Your task to perform on an android device: delete the emails in spam in the gmail app Image 0: 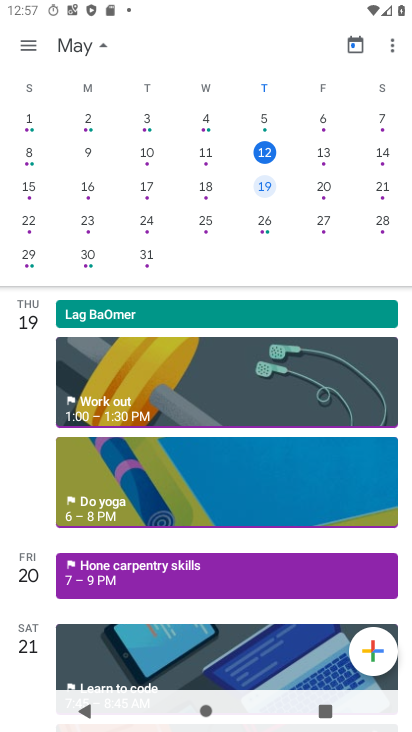
Step 0: press home button
Your task to perform on an android device: delete the emails in spam in the gmail app Image 1: 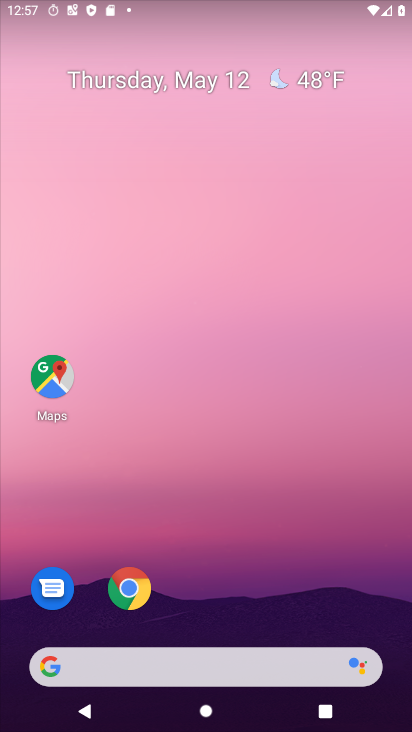
Step 1: drag from (230, 590) to (227, 118)
Your task to perform on an android device: delete the emails in spam in the gmail app Image 2: 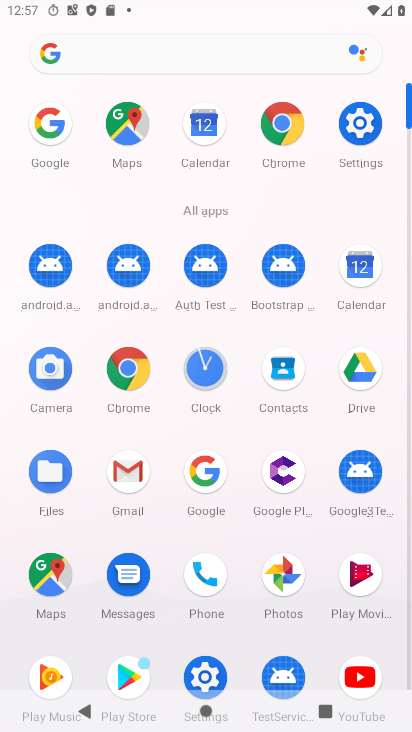
Step 2: click (131, 463)
Your task to perform on an android device: delete the emails in spam in the gmail app Image 3: 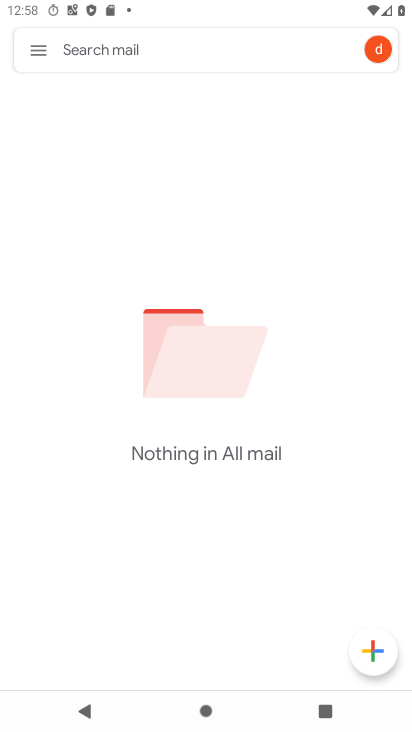
Step 3: click (34, 48)
Your task to perform on an android device: delete the emails in spam in the gmail app Image 4: 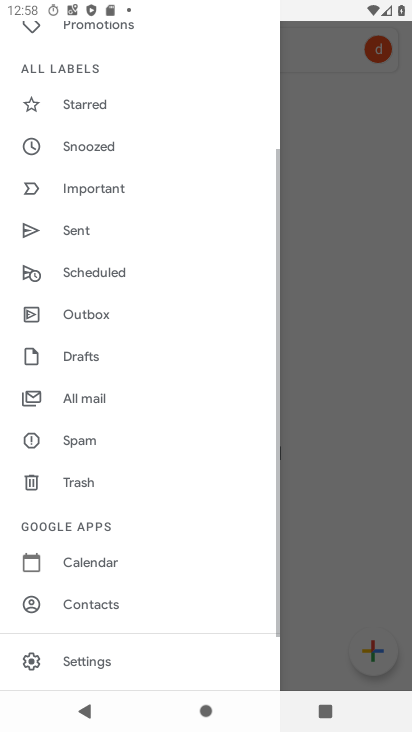
Step 4: click (74, 436)
Your task to perform on an android device: delete the emails in spam in the gmail app Image 5: 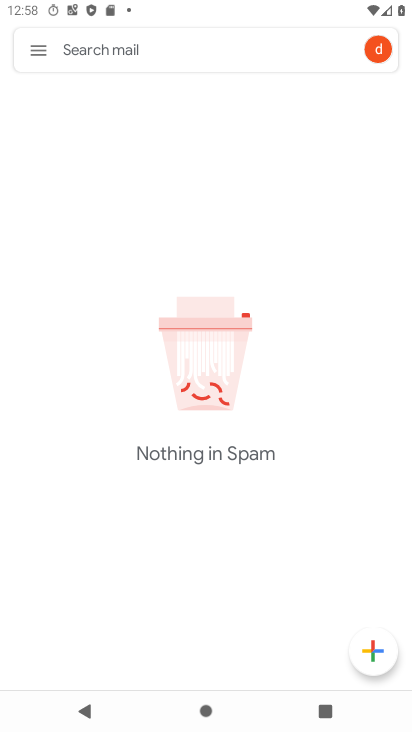
Step 5: task complete